Your task to perform on an android device: find photos in the google photos app Image 0: 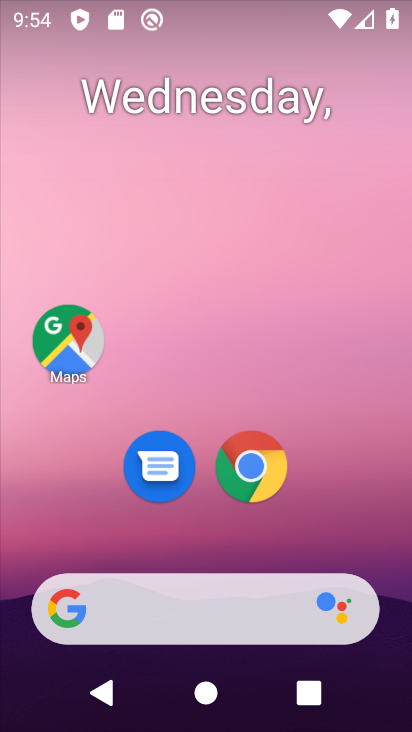
Step 0: drag from (215, 450) to (214, 183)
Your task to perform on an android device: find photos in the google photos app Image 1: 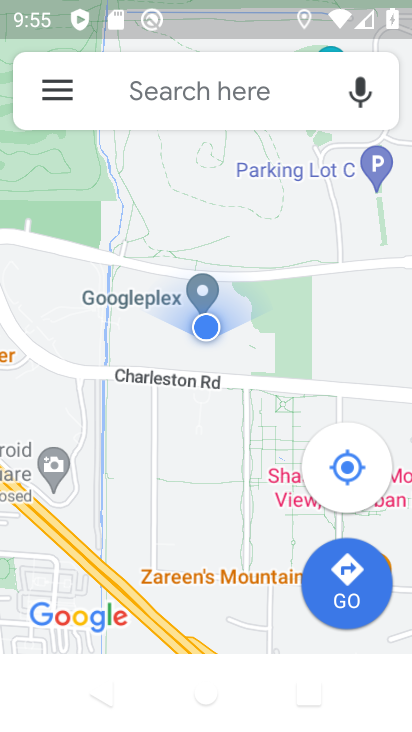
Step 1: press home button
Your task to perform on an android device: find photos in the google photos app Image 2: 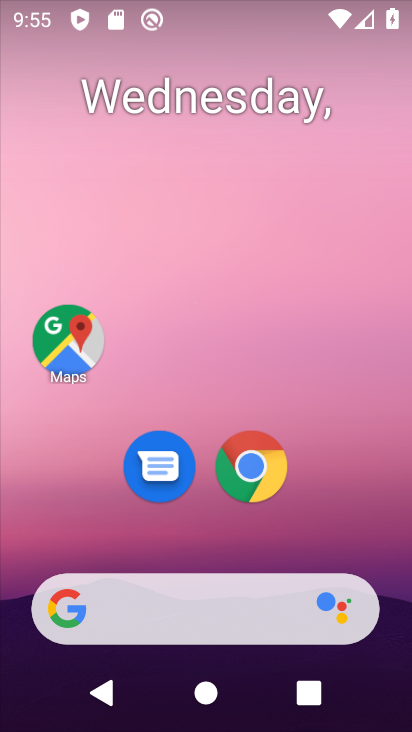
Step 2: drag from (205, 689) to (222, 154)
Your task to perform on an android device: find photos in the google photos app Image 3: 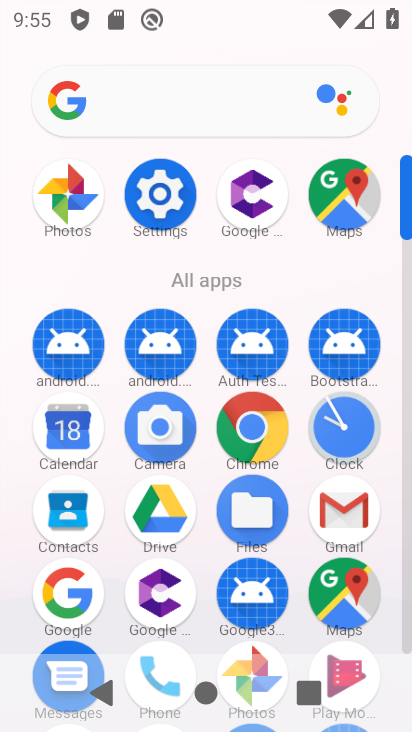
Step 3: click (75, 195)
Your task to perform on an android device: find photos in the google photos app Image 4: 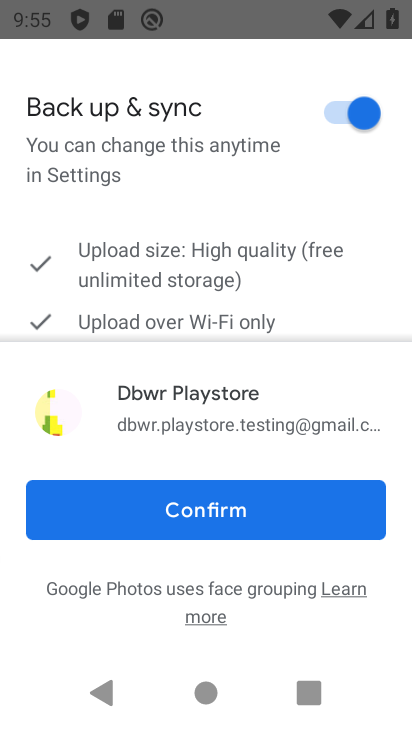
Step 4: click (208, 506)
Your task to perform on an android device: find photos in the google photos app Image 5: 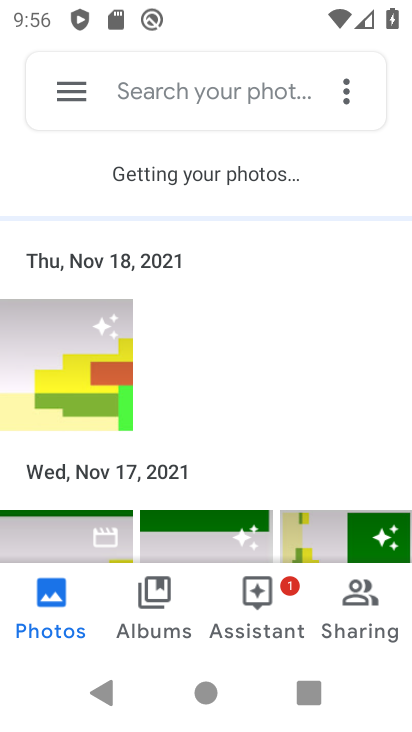
Step 5: click (75, 352)
Your task to perform on an android device: find photos in the google photos app Image 6: 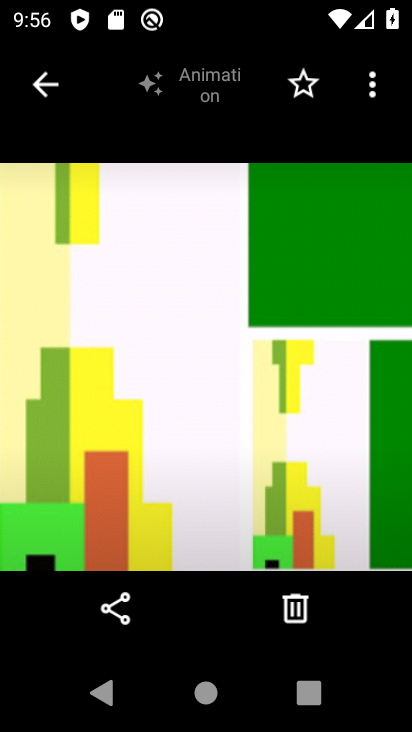
Step 6: task complete